Your task to perform on an android device: Search for vegetarian restaurants on Maps Image 0: 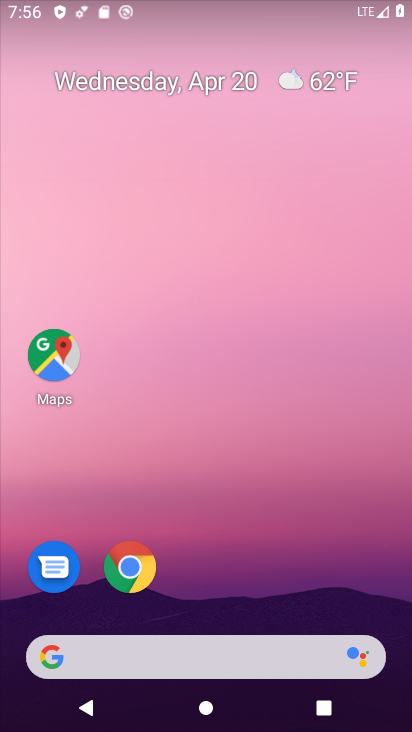
Step 0: drag from (276, 552) to (312, 95)
Your task to perform on an android device: Search for vegetarian restaurants on Maps Image 1: 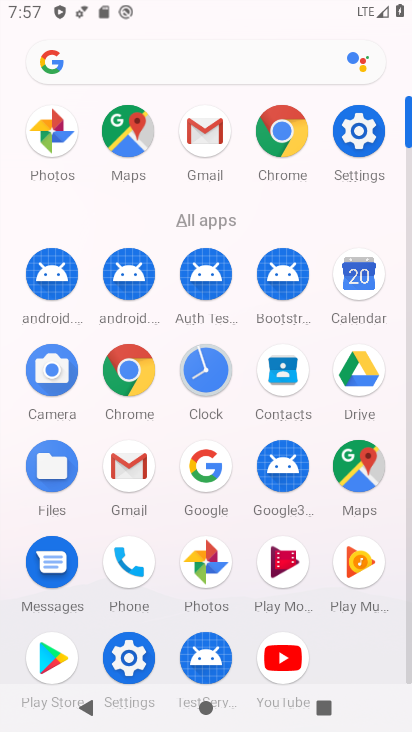
Step 1: click (140, 131)
Your task to perform on an android device: Search for vegetarian restaurants on Maps Image 2: 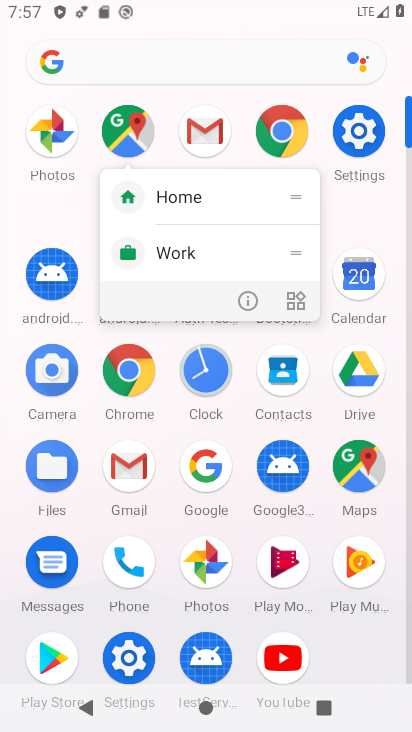
Step 2: click (140, 131)
Your task to perform on an android device: Search for vegetarian restaurants on Maps Image 3: 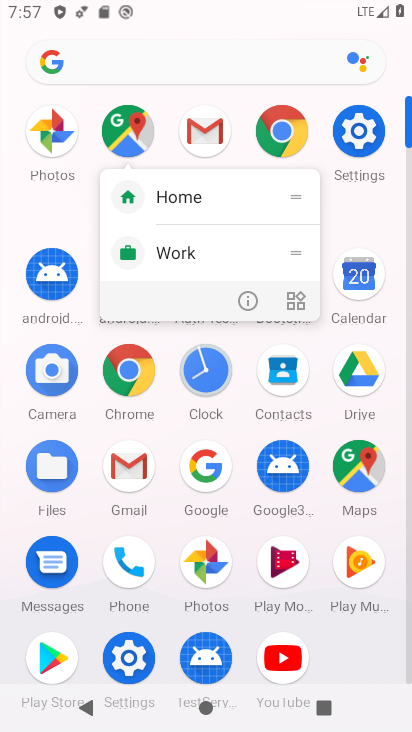
Step 3: click (140, 131)
Your task to perform on an android device: Search for vegetarian restaurants on Maps Image 4: 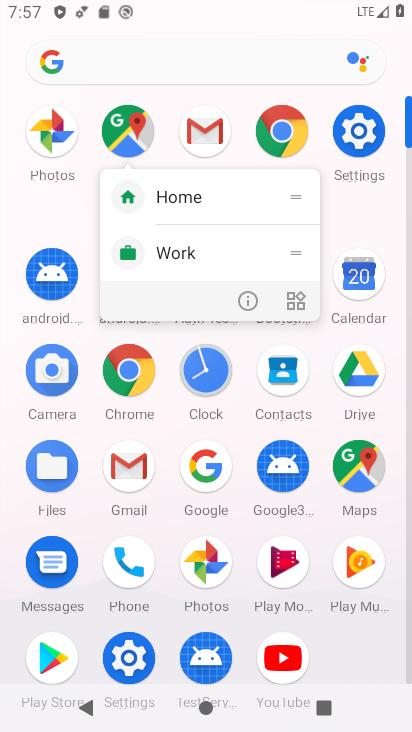
Step 4: click (140, 131)
Your task to perform on an android device: Search for vegetarian restaurants on Maps Image 5: 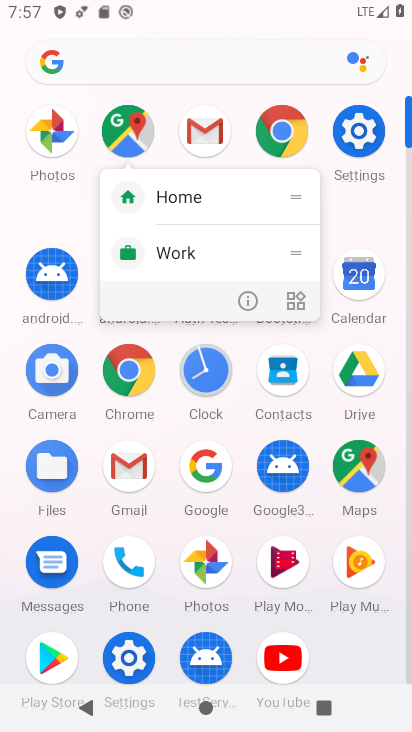
Step 5: click (140, 131)
Your task to perform on an android device: Search for vegetarian restaurants on Maps Image 6: 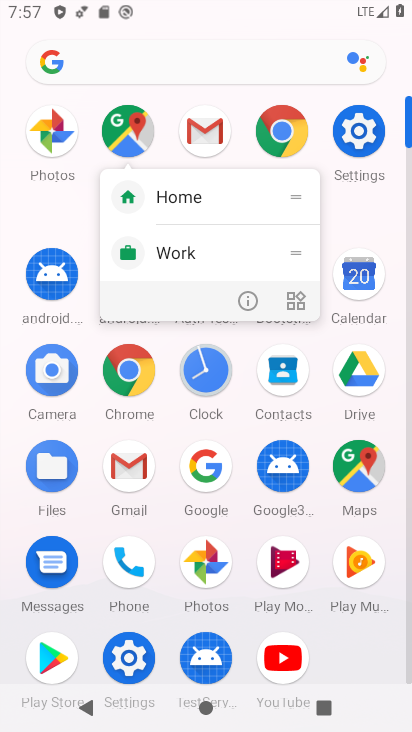
Step 6: click (140, 131)
Your task to perform on an android device: Search for vegetarian restaurants on Maps Image 7: 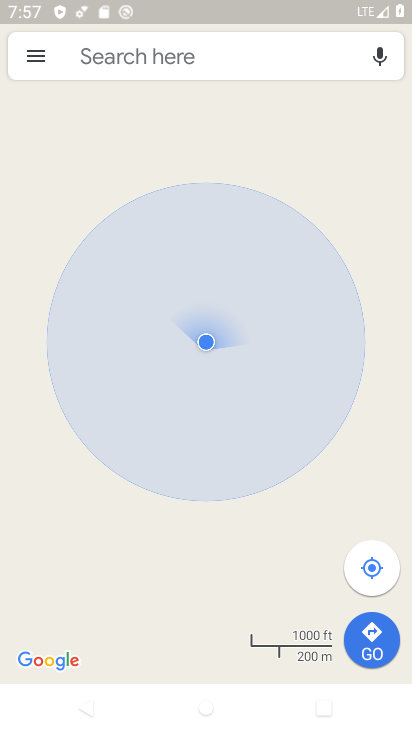
Step 7: click (131, 58)
Your task to perform on an android device: Search for vegetarian restaurants on Maps Image 8: 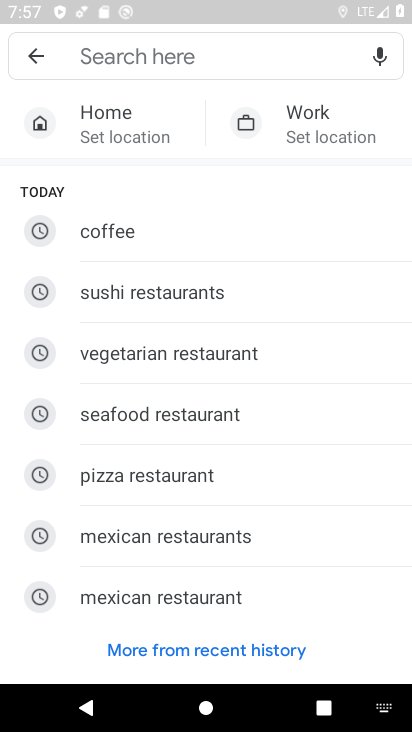
Step 8: click (253, 363)
Your task to perform on an android device: Search for vegetarian restaurants on Maps Image 9: 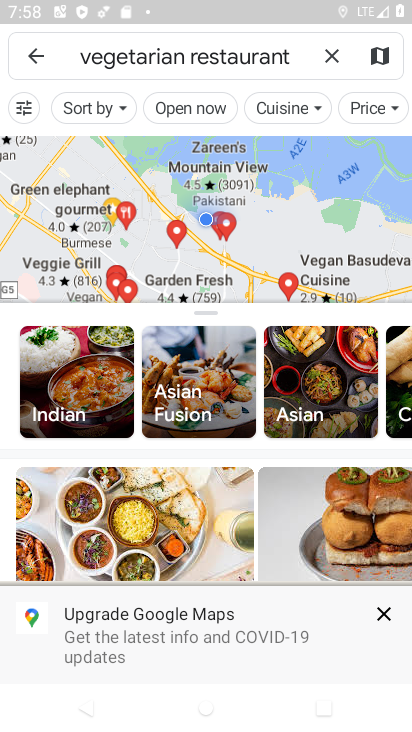
Step 9: task complete